Your task to perform on an android device: Turn on the flashlight Image 0: 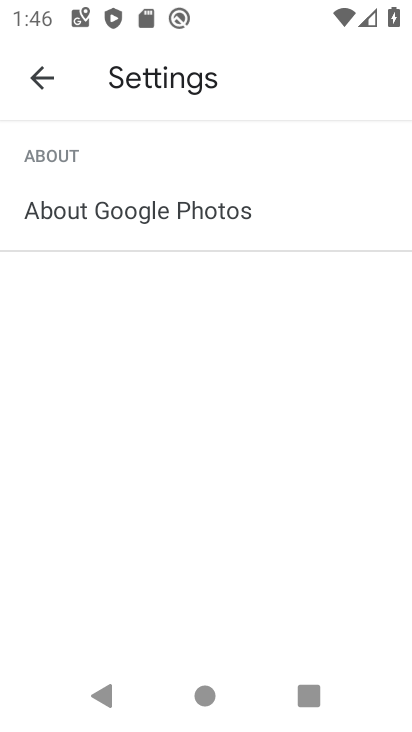
Step 0: press back button
Your task to perform on an android device: Turn on the flashlight Image 1: 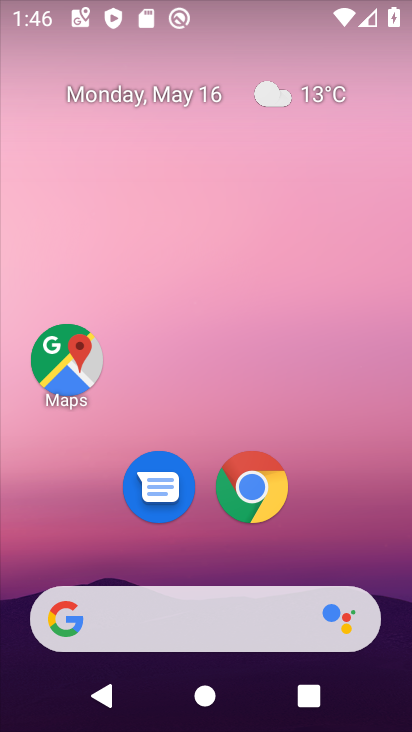
Step 1: drag from (347, 542) to (261, 0)
Your task to perform on an android device: Turn on the flashlight Image 2: 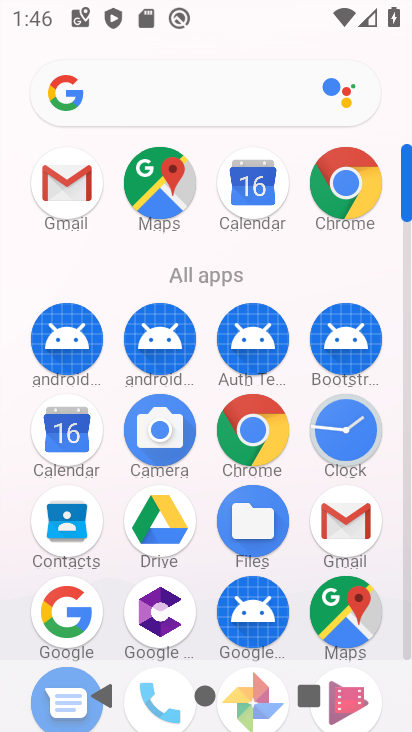
Step 2: drag from (10, 519) to (14, 201)
Your task to perform on an android device: Turn on the flashlight Image 3: 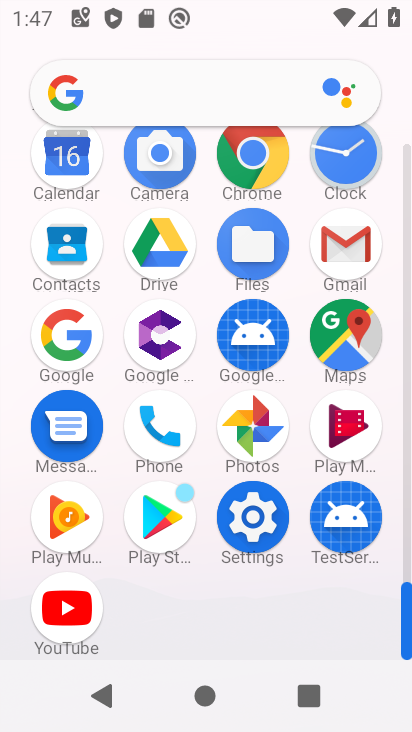
Step 3: click (254, 514)
Your task to perform on an android device: Turn on the flashlight Image 4: 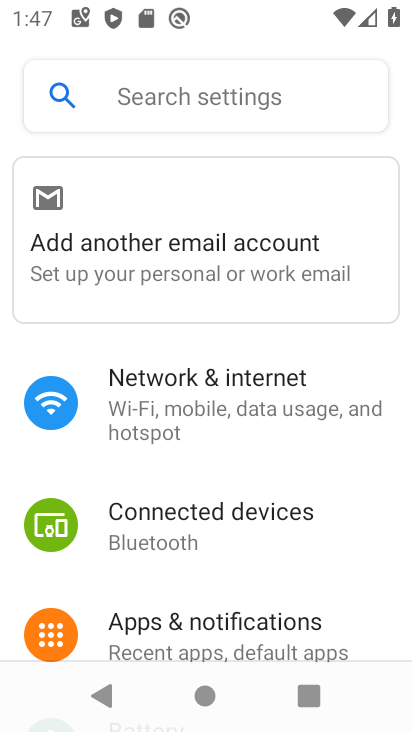
Step 4: click (230, 388)
Your task to perform on an android device: Turn on the flashlight Image 5: 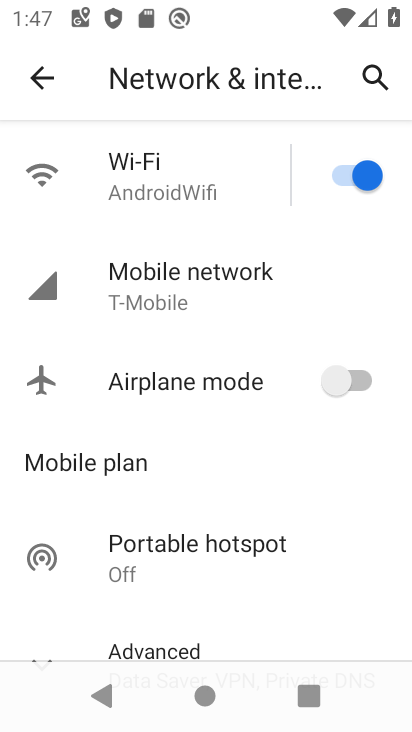
Step 5: drag from (165, 487) to (180, 97)
Your task to perform on an android device: Turn on the flashlight Image 6: 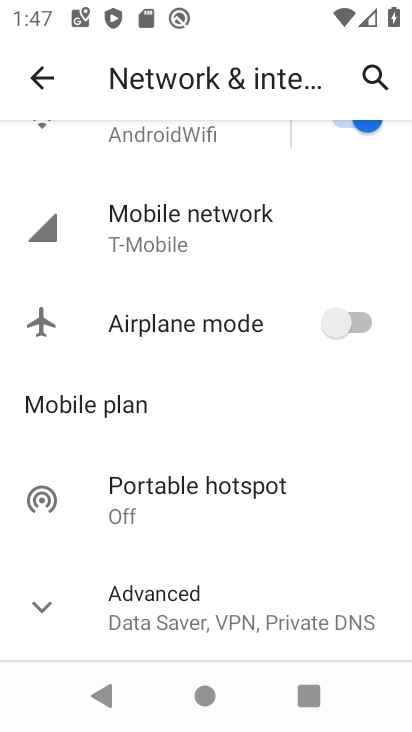
Step 6: click (53, 595)
Your task to perform on an android device: Turn on the flashlight Image 7: 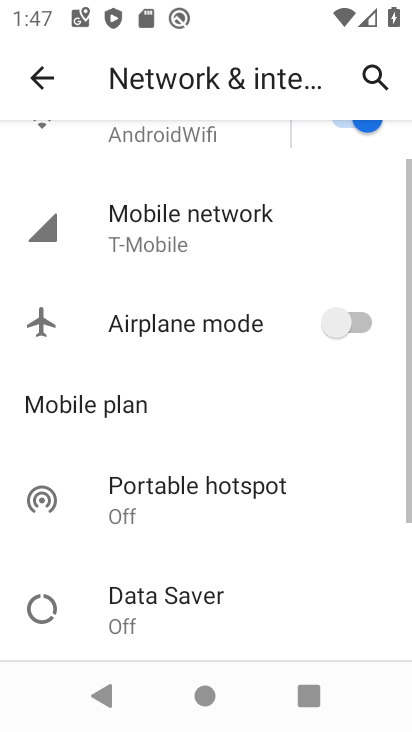
Step 7: task complete